Your task to perform on an android device: What's on my calendar tomorrow? Image 0: 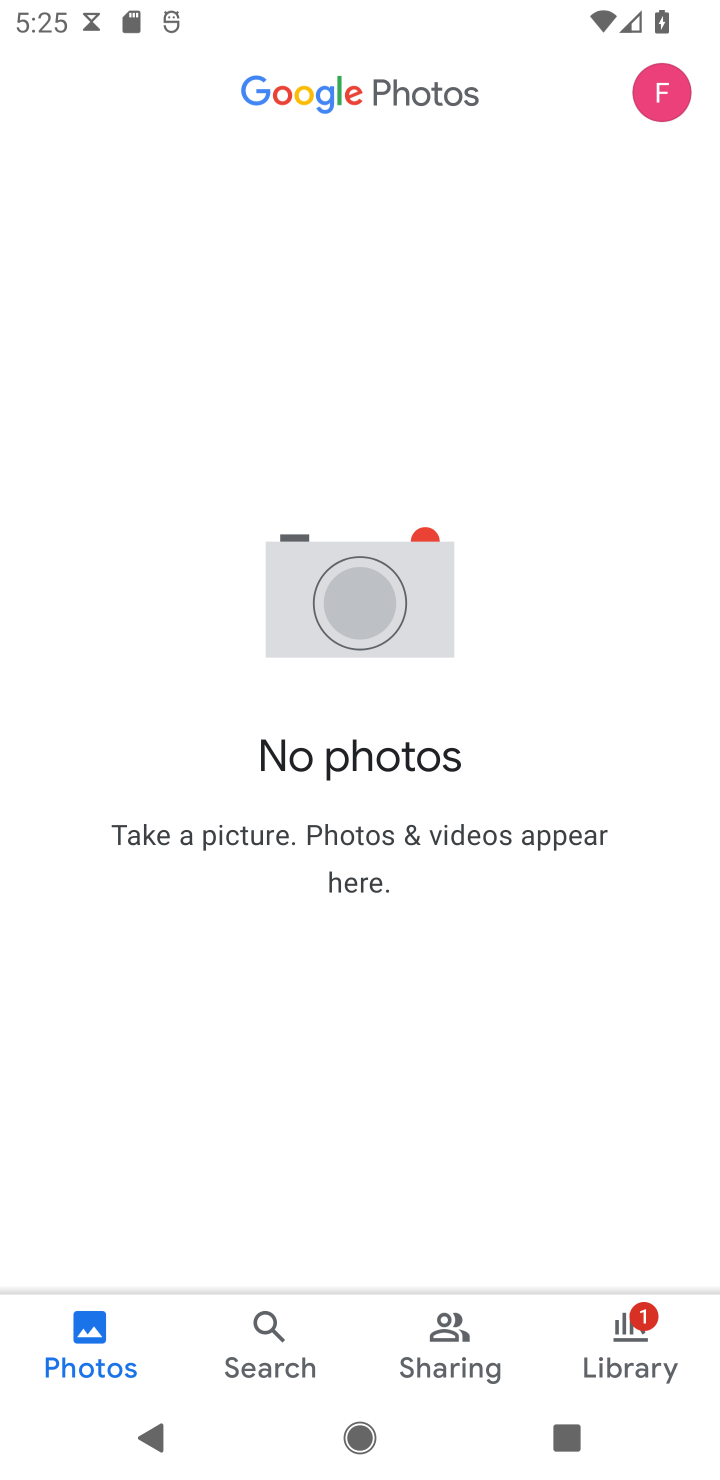
Step 0: press home button
Your task to perform on an android device: What's on my calendar tomorrow? Image 1: 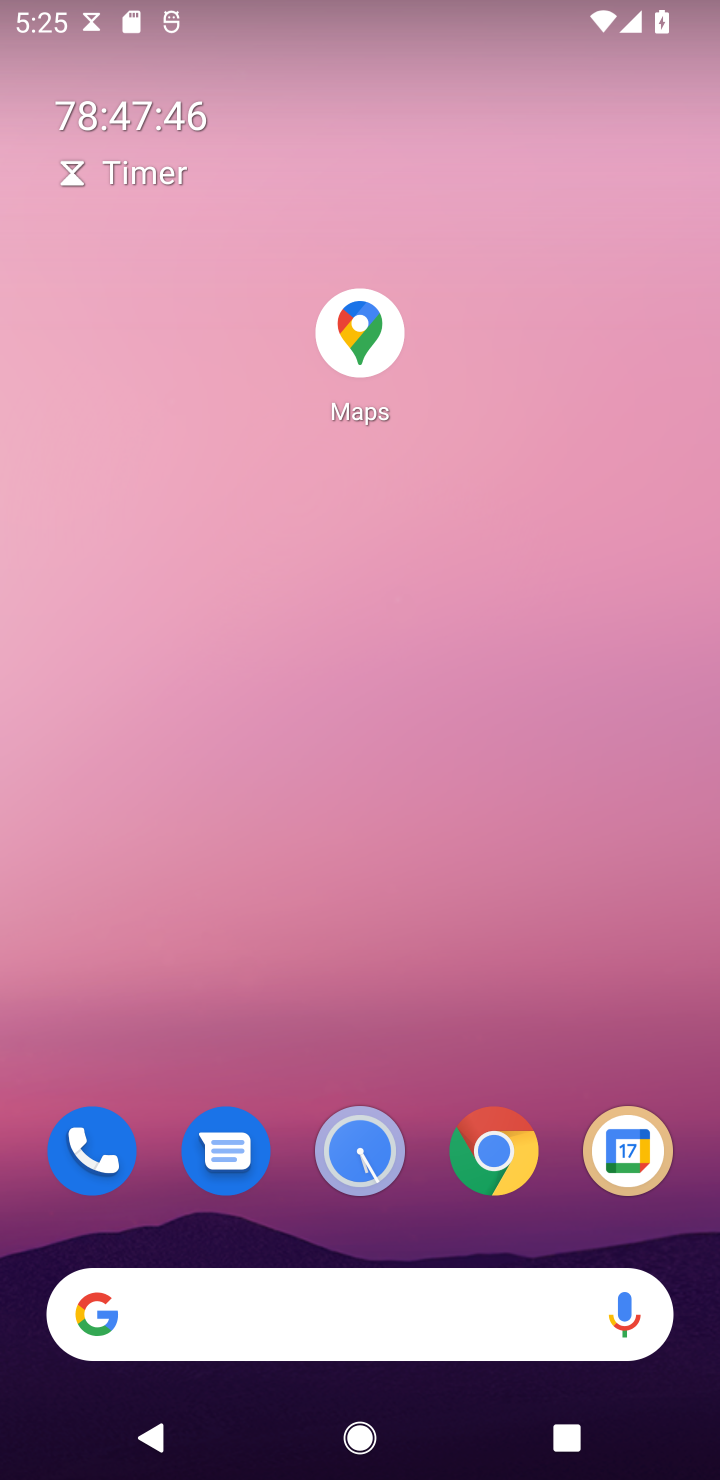
Step 1: drag from (241, 1261) to (312, 414)
Your task to perform on an android device: What's on my calendar tomorrow? Image 2: 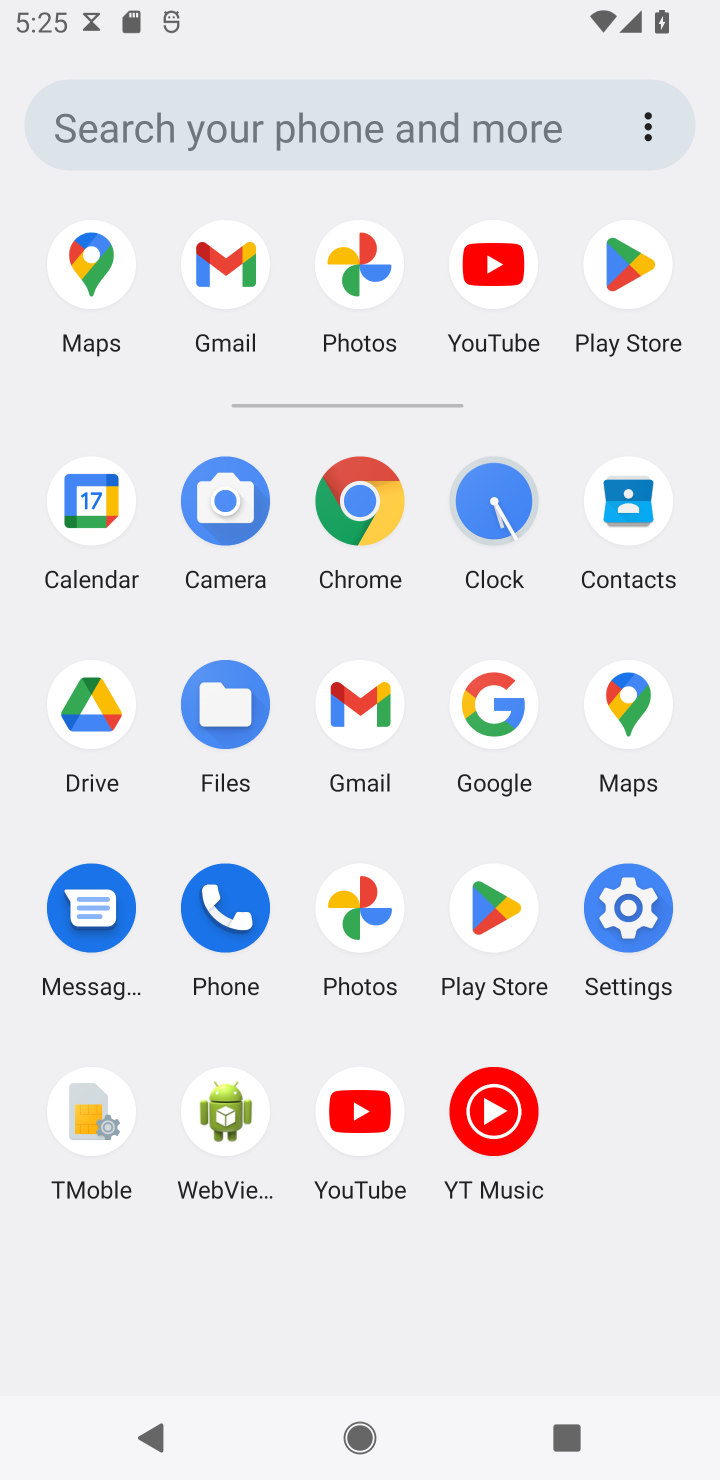
Step 2: click (83, 478)
Your task to perform on an android device: What's on my calendar tomorrow? Image 3: 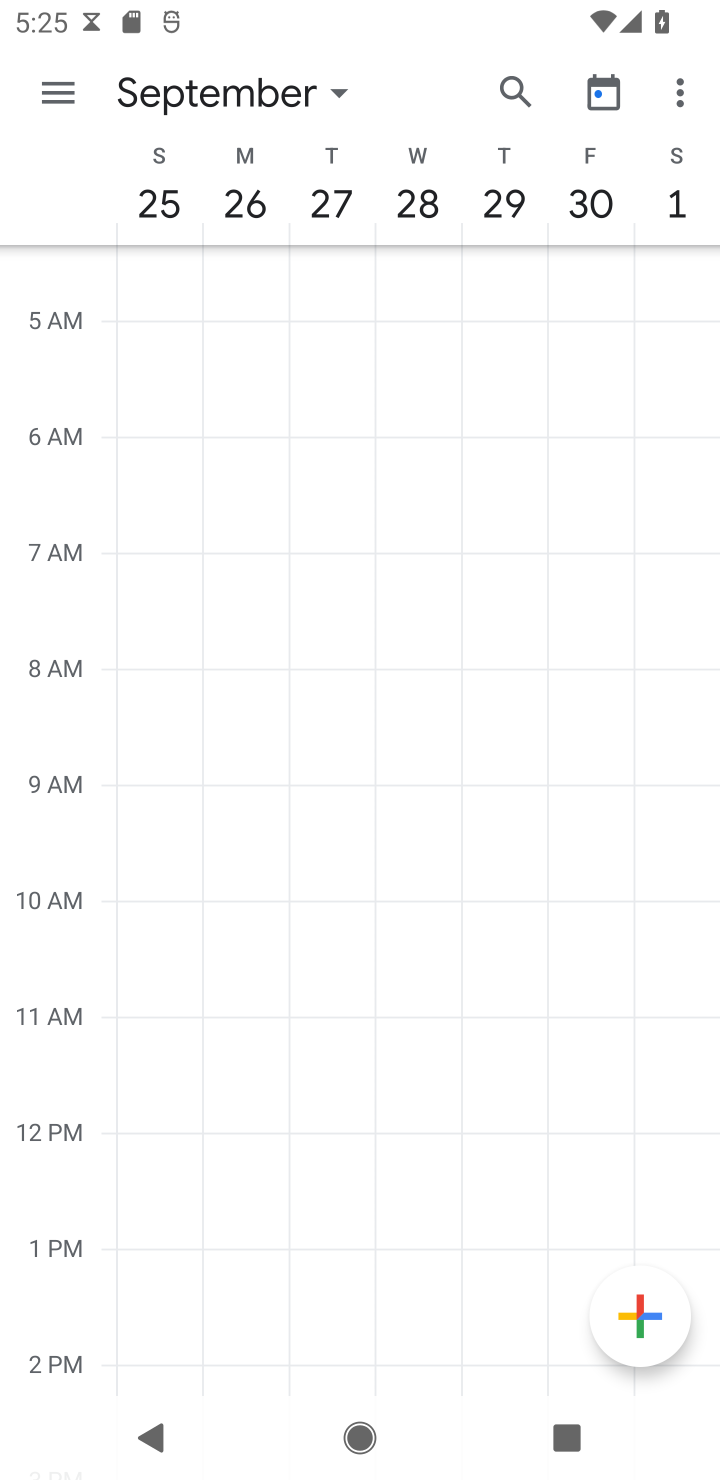
Step 3: click (37, 71)
Your task to perform on an android device: What's on my calendar tomorrow? Image 4: 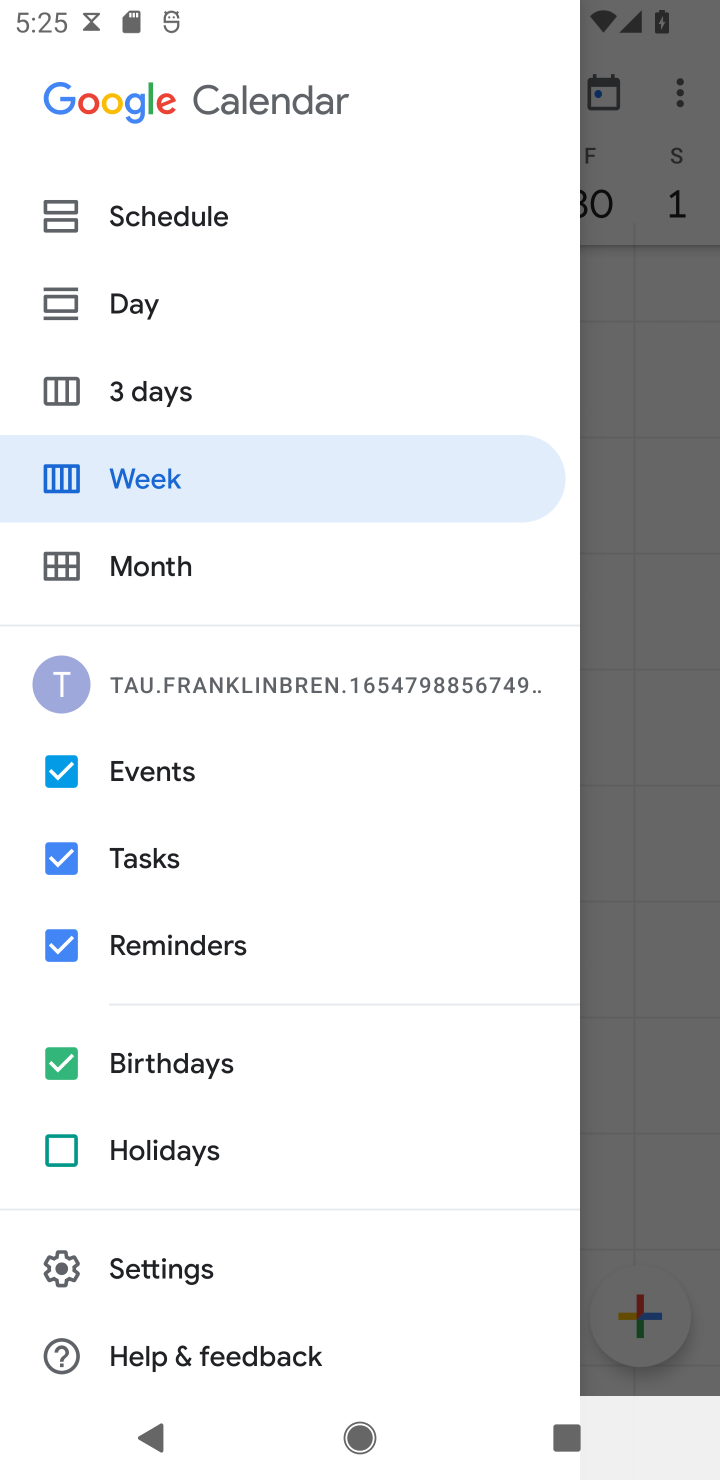
Step 4: click (163, 557)
Your task to perform on an android device: What's on my calendar tomorrow? Image 5: 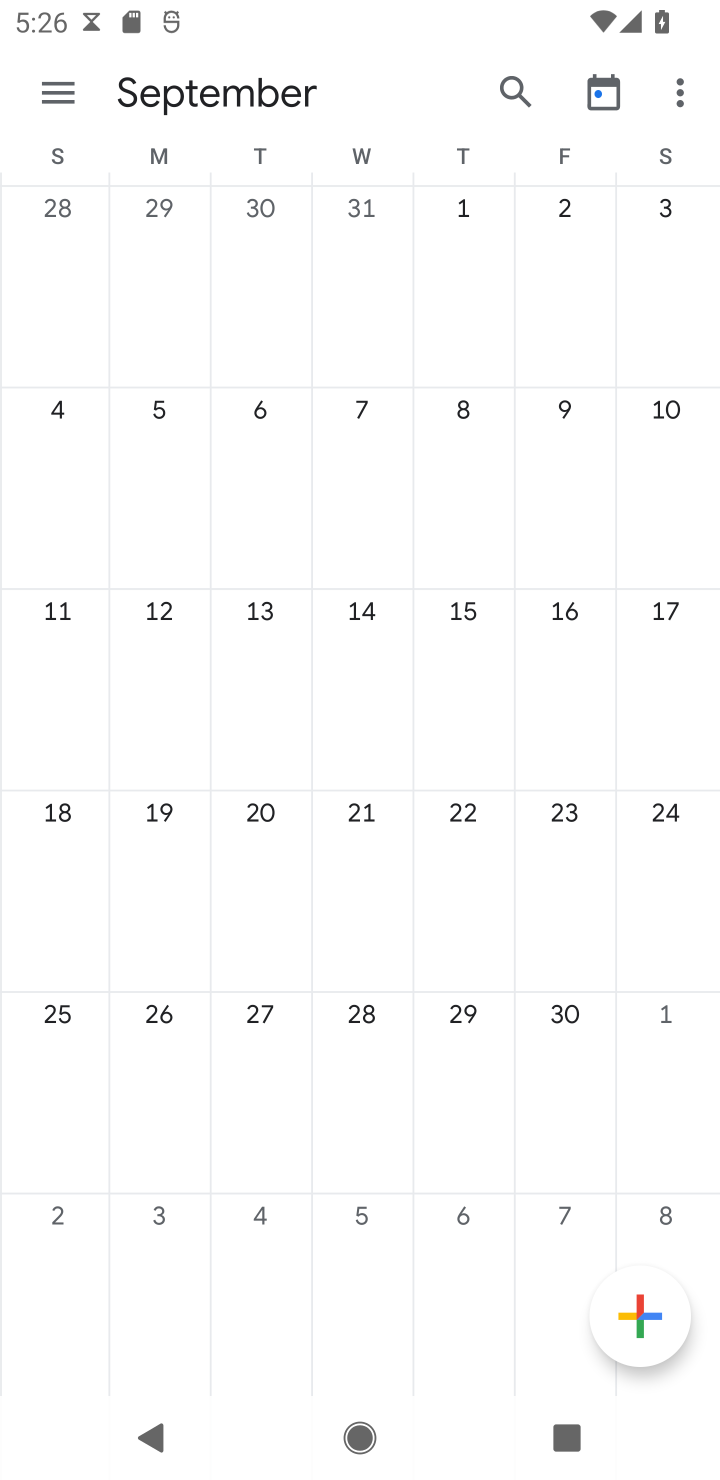
Step 5: drag from (96, 494) to (693, 520)
Your task to perform on an android device: What's on my calendar tomorrow? Image 6: 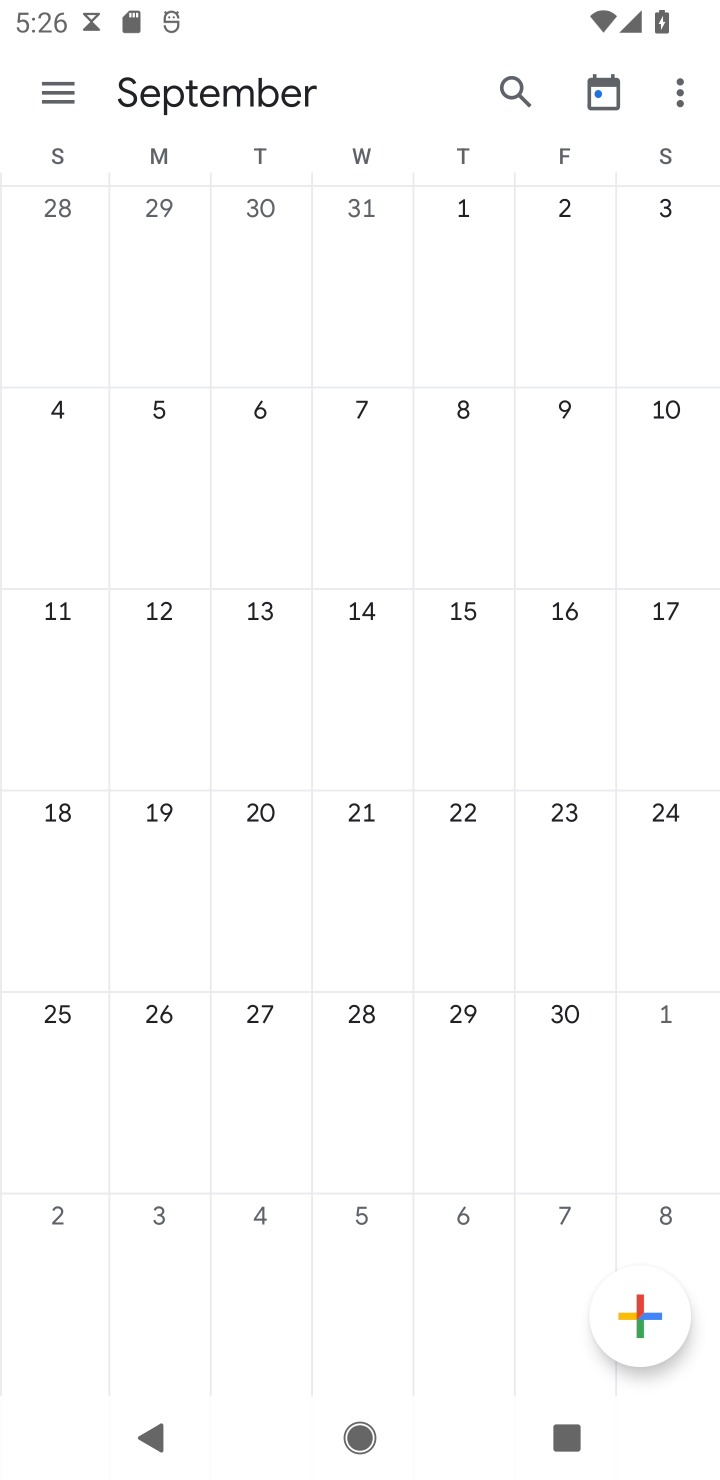
Step 6: drag from (45, 358) to (524, 356)
Your task to perform on an android device: What's on my calendar tomorrow? Image 7: 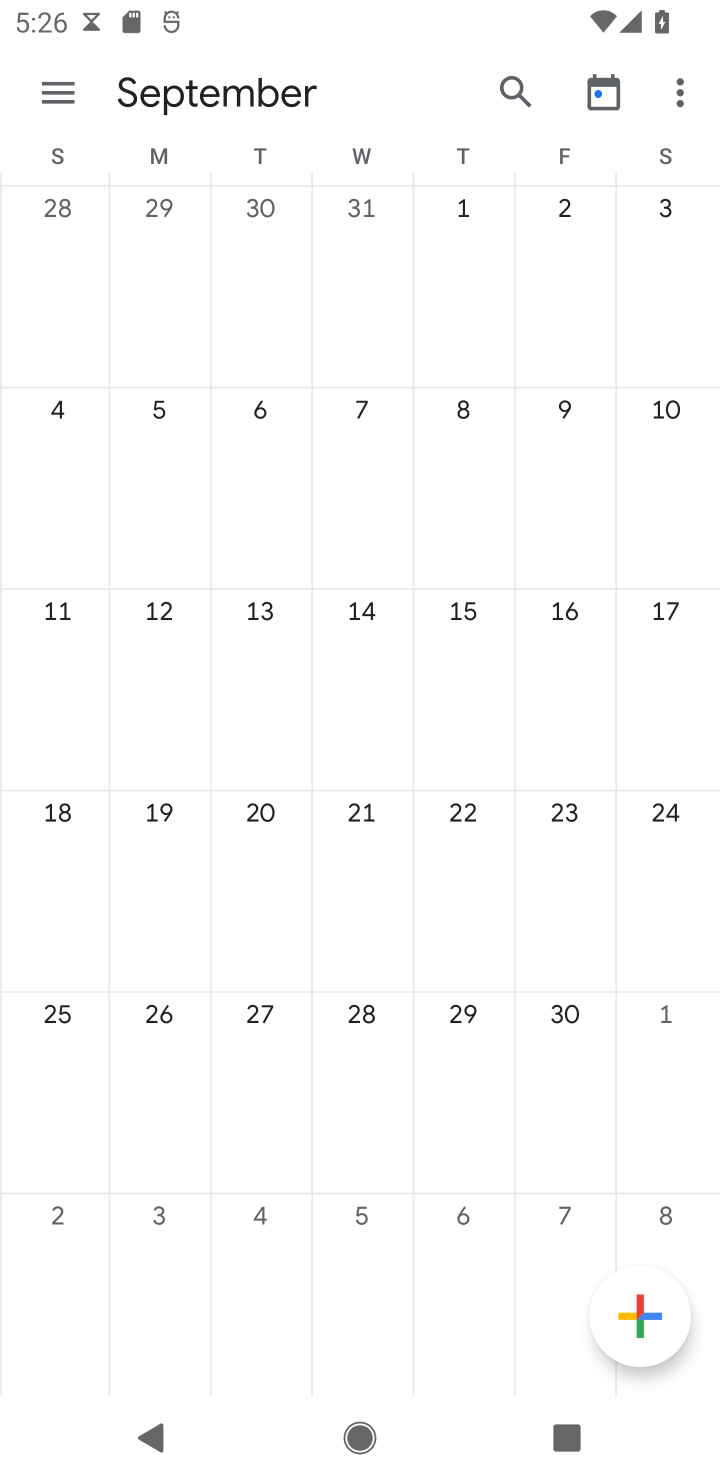
Step 7: drag from (64, 467) to (718, 486)
Your task to perform on an android device: What's on my calendar tomorrow? Image 8: 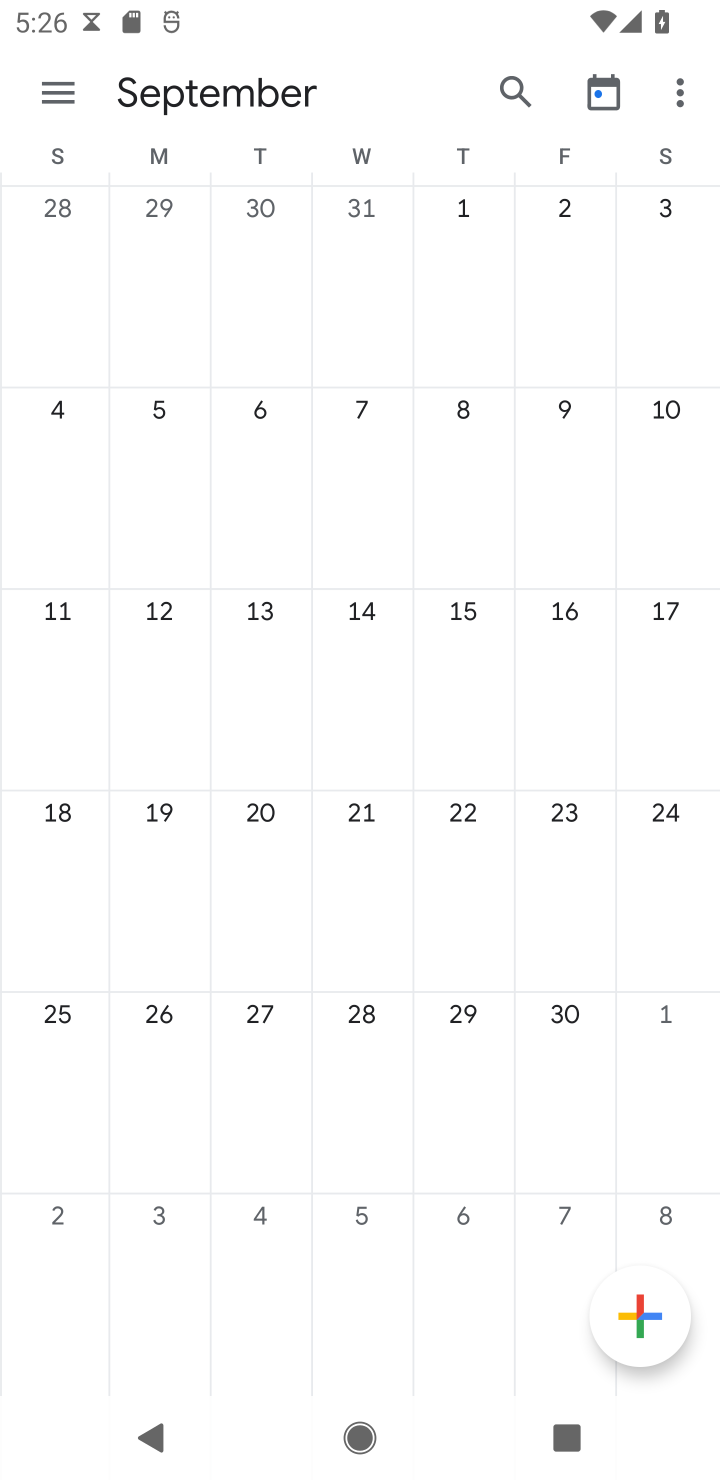
Step 8: click (63, 220)
Your task to perform on an android device: What's on my calendar tomorrow? Image 9: 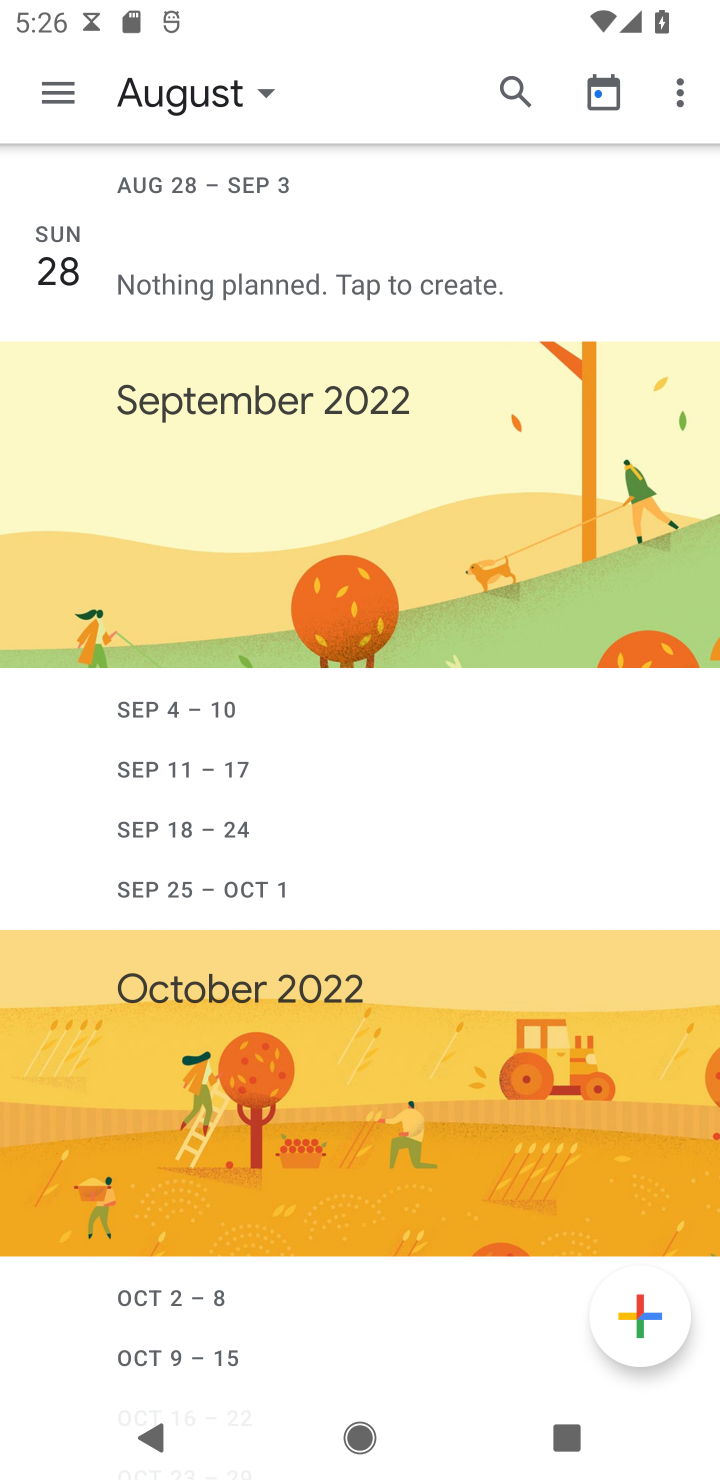
Step 9: drag from (73, 228) to (228, 256)
Your task to perform on an android device: What's on my calendar tomorrow? Image 10: 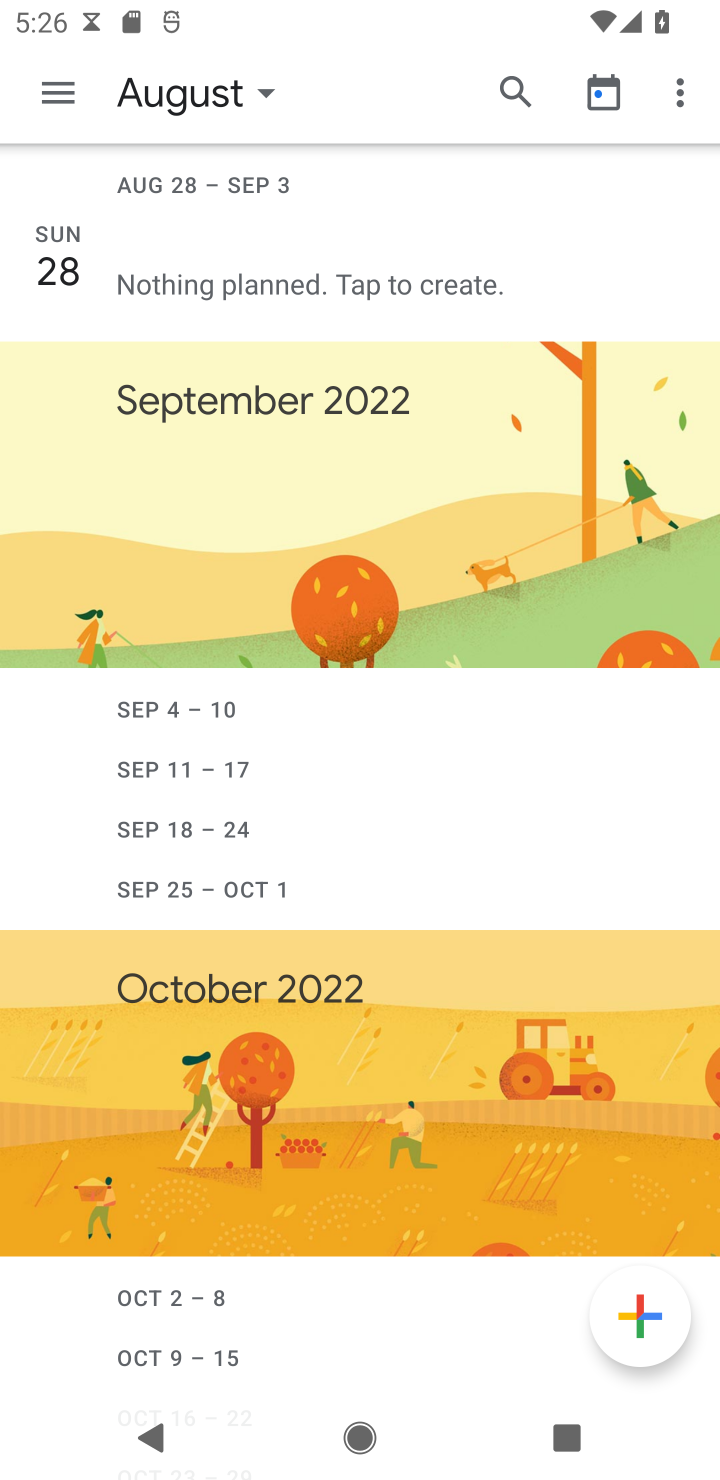
Step 10: click (67, 92)
Your task to perform on an android device: What's on my calendar tomorrow? Image 11: 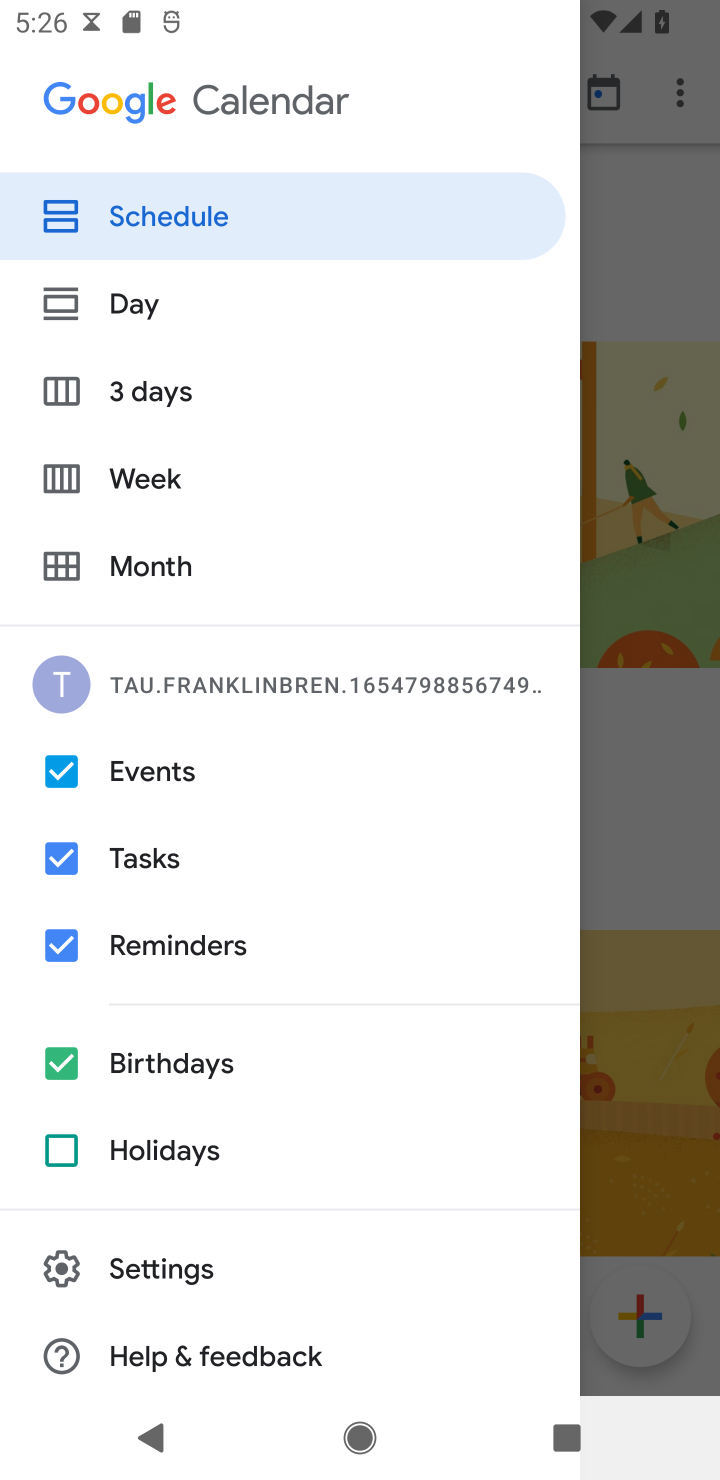
Step 11: click (175, 553)
Your task to perform on an android device: What's on my calendar tomorrow? Image 12: 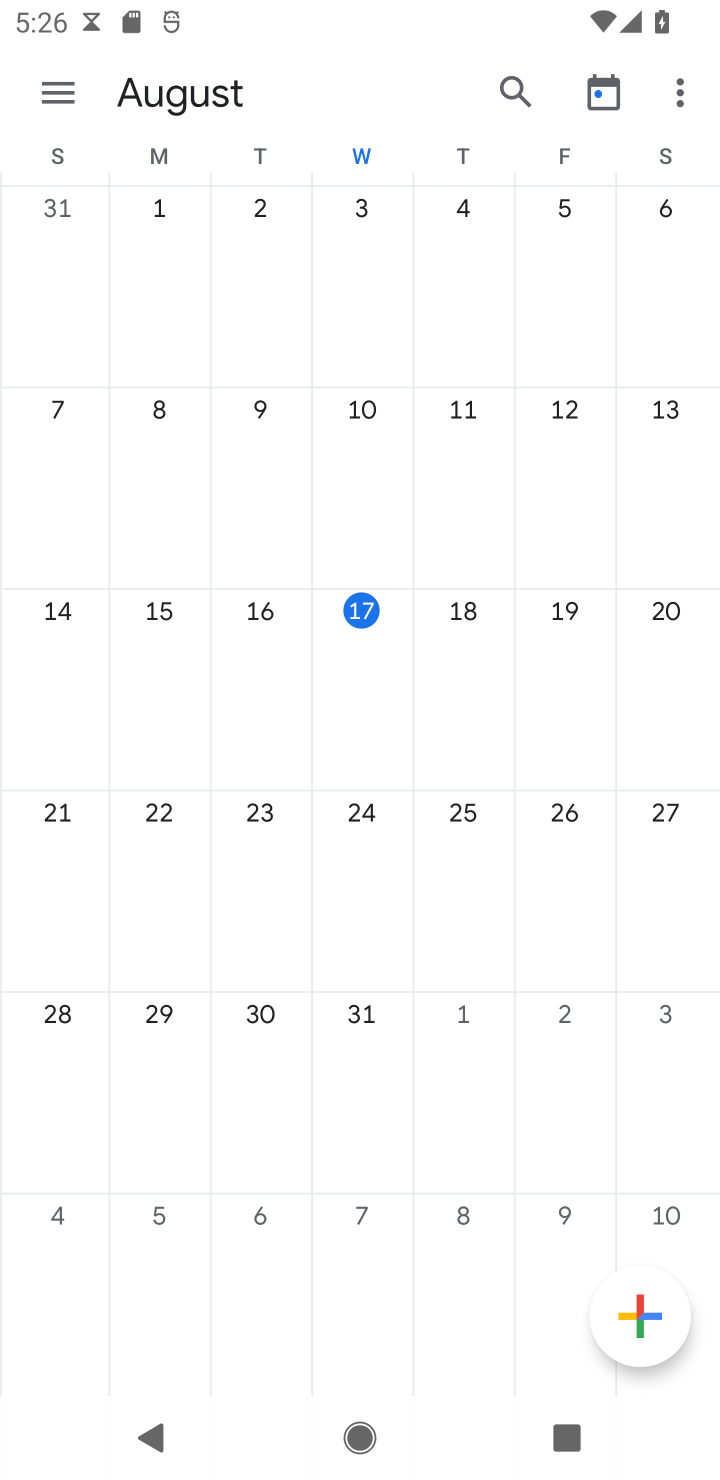
Step 12: drag from (517, 398) to (443, 436)
Your task to perform on an android device: What's on my calendar tomorrow? Image 13: 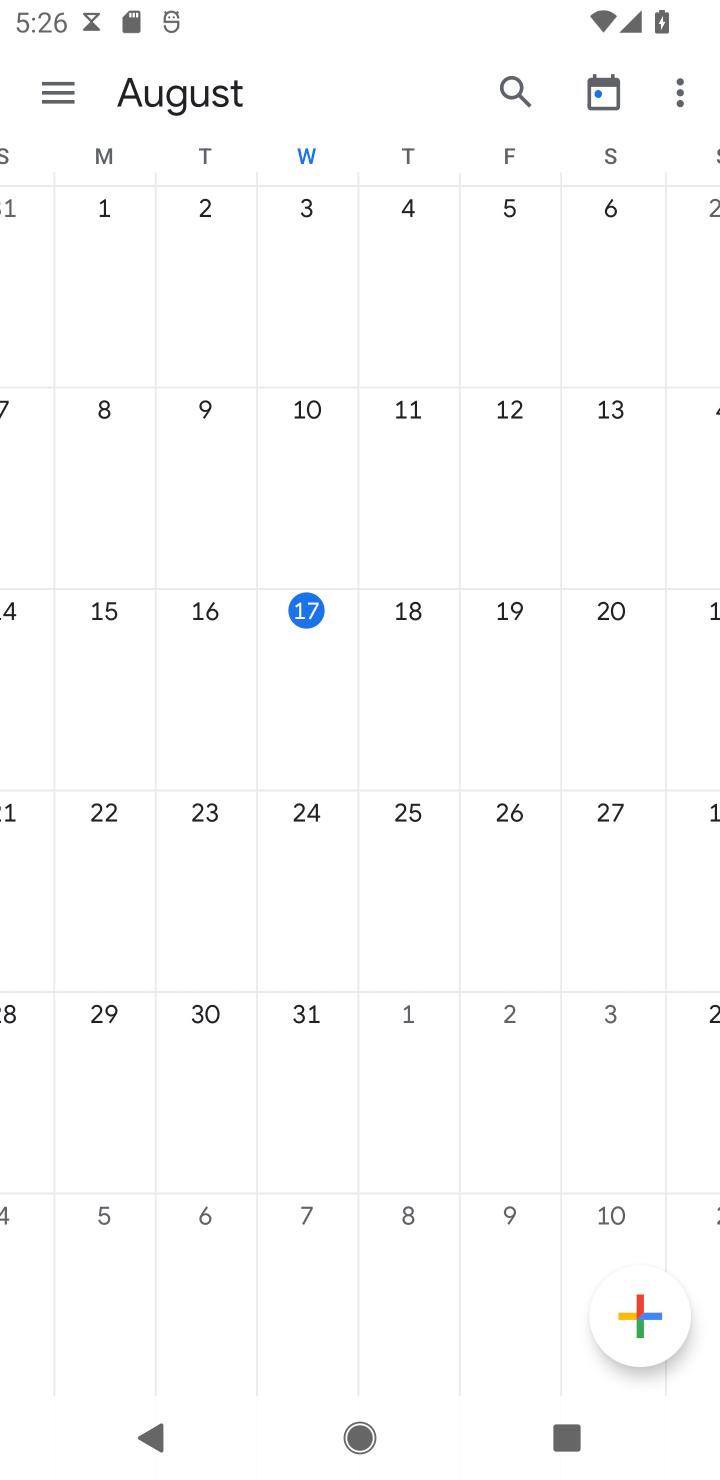
Step 13: click (470, 622)
Your task to perform on an android device: What's on my calendar tomorrow? Image 14: 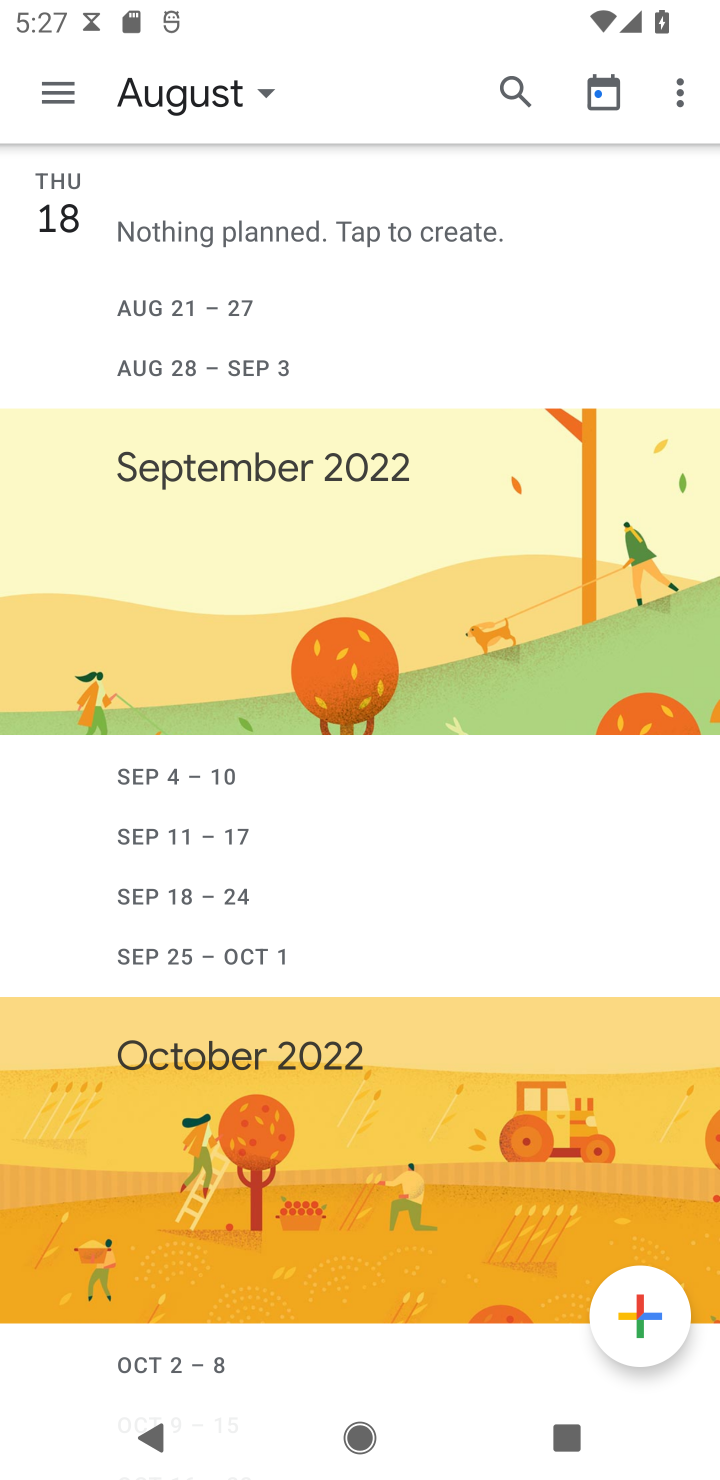
Step 14: task complete